Your task to perform on an android device: remove spam from my inbox in the gmail app Image 0: 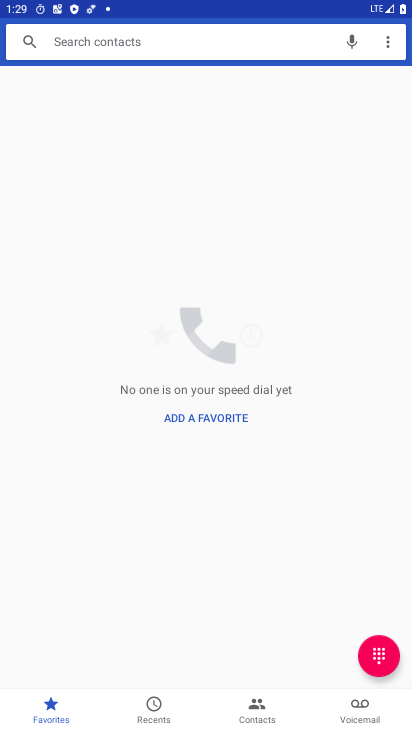
Step 0: press home button
Your task to perform on an android device: remove spam from my inbox in the gmail app Image 1: 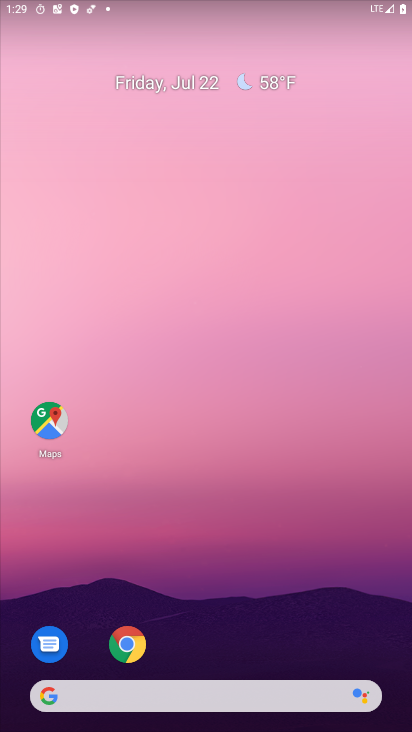
Step 1: drag from (154, 585) to (217, 21)
Your task to perform on an android device: remove spam from my inbox in the gmail app Image 2: 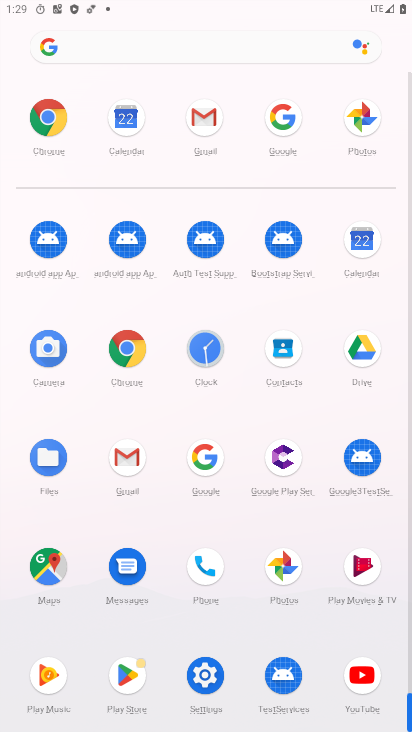
Step 2: click (140, 458)
Your task to perform on an android device: remove spam from my inbox in the gmail app Image 3: 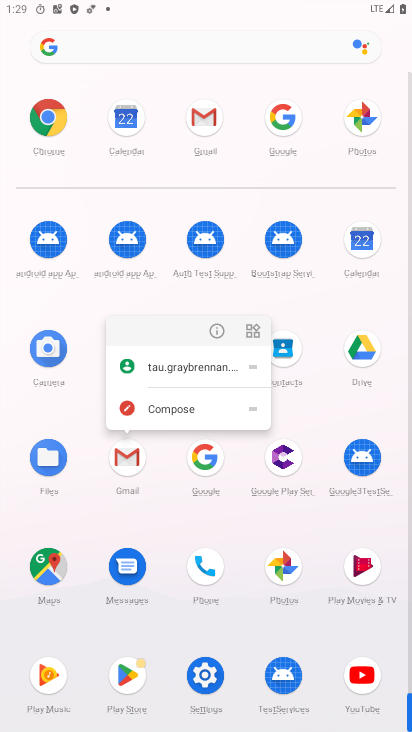
Step 3: click (213, 333)
Your task to perform on an android device: remove spam from my inbox in the gmail app Image 4: 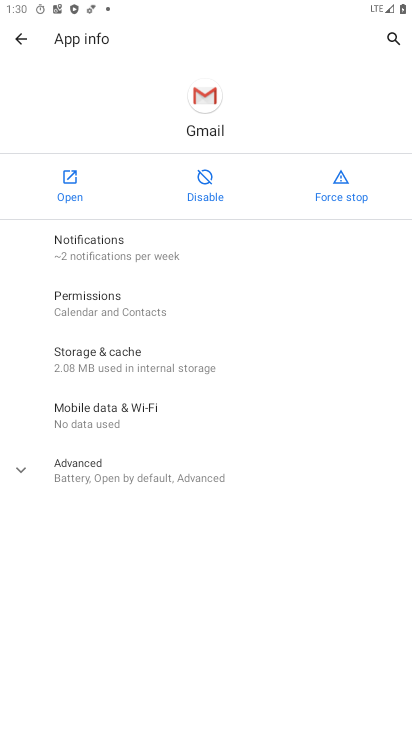
Step 4: click (70, 192)
Your task to perform on an android device: remove spam from my inbox in the gmail app Image 5: 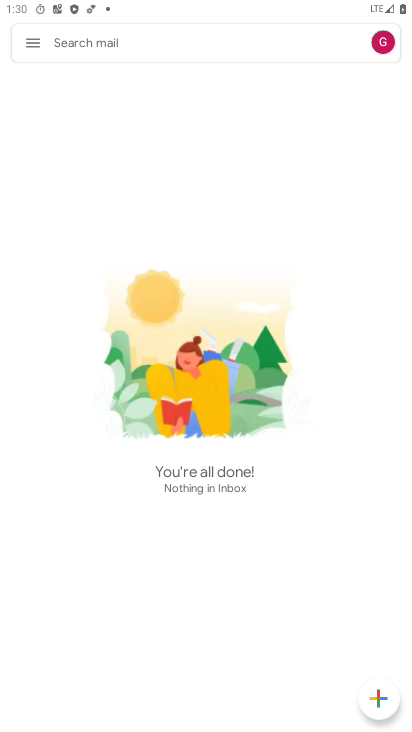
Step 5: drag from (188, 608) to (225, 239)
Your task to perform on an android device: remove spam from my inbox in the gmail app Image 6: 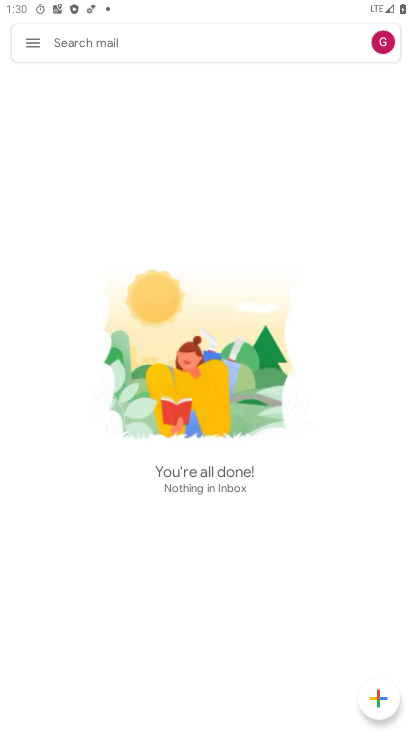
Step 6: drag from (197, 484) to (244, 332)
Your task to perform on an android device: remove spam from my inbox in the gmail app Image 7: 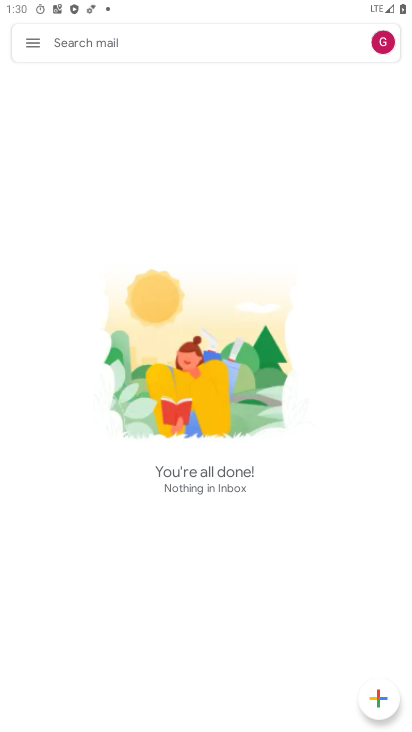
Step 7: drag from (197, 528) to (219, 340)
Your task to perform on an android device: remove spam from my inbox in the gmail app Image 8: 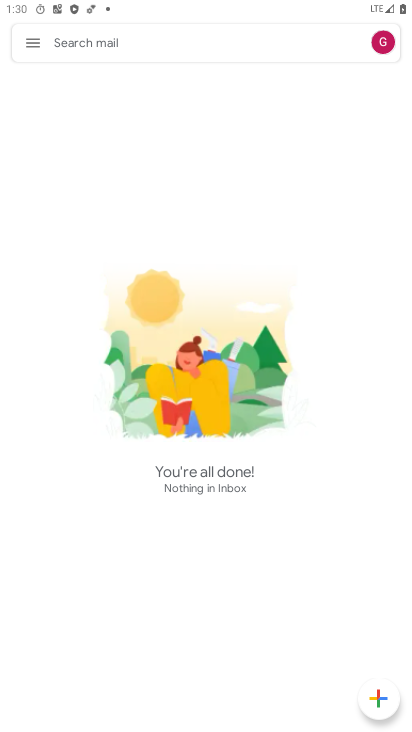
Step 8: click (29, 51)
Your task to perform on an android device: remove spam from my inbox in the gmail app Image 9: 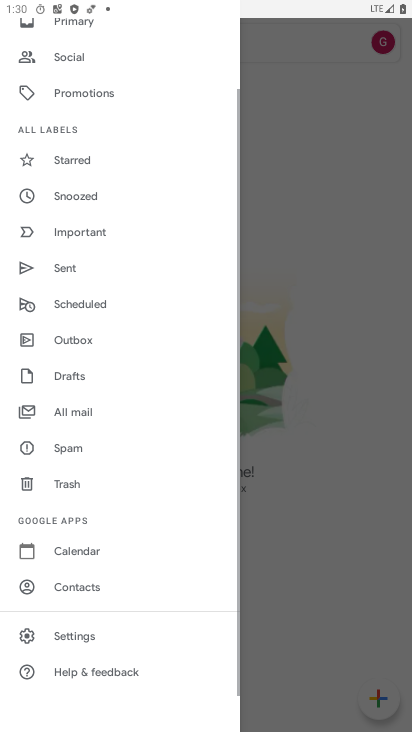
Step 9: click (71, 450)
Your task to perform on an android device: remove spam from my inbox in the gmail app Image 10: 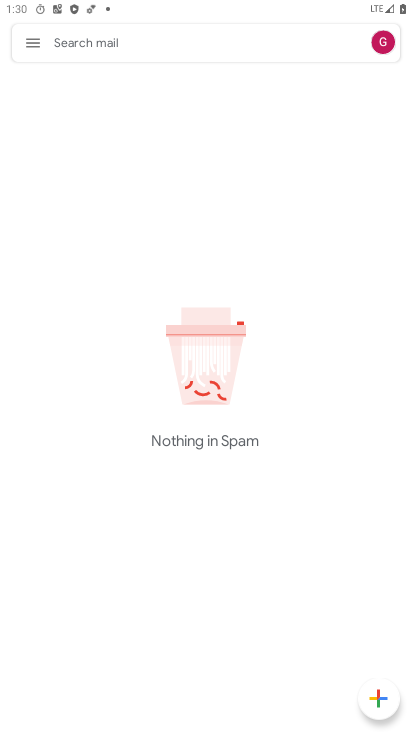
Step 10: task complete